Your task to perform on an android device: Empty the shopping cart on costco. Search for "usb-a" on costco, select the first entry, and add it to the cart. Image 0: 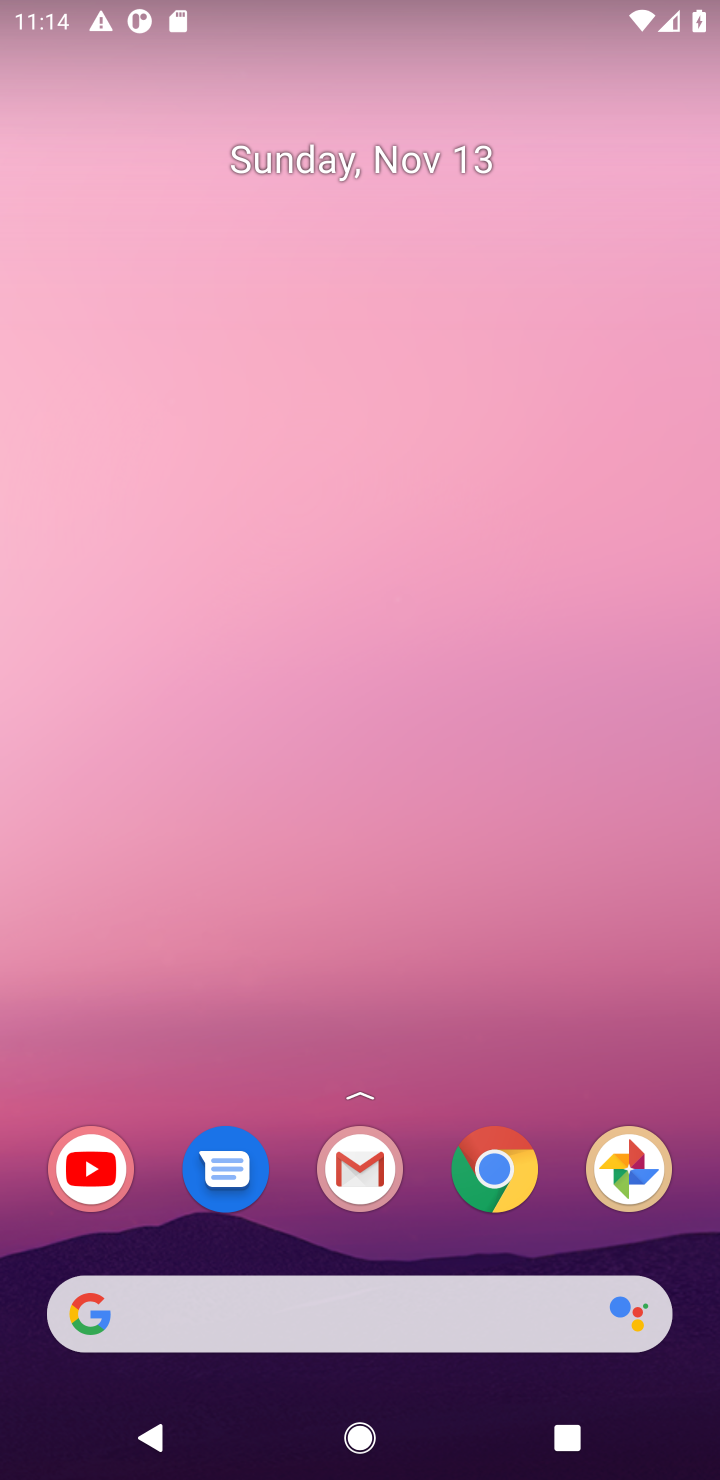
Step 0: drag from (451, 1243) to (572, 80)
Your task to perform on an android device: Empty the shopping cart on costco. Search for "usb-a" on costco, select the first entry, and add it to the cart. Image 1: 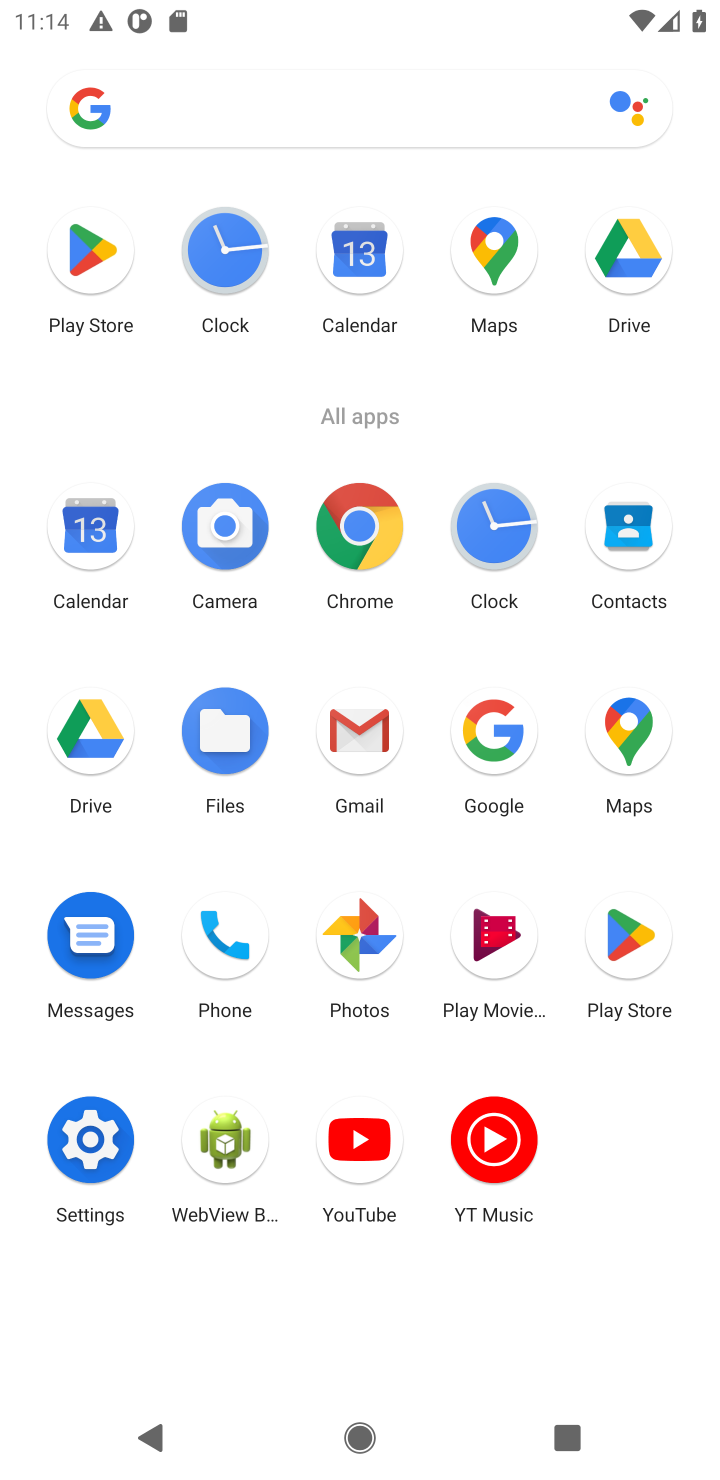
Step 1: click (365, 525)
Your task to perform on an android device: Empty the shopping cart on costco. Search for "usb-a" on costco, select the first entry, and add it to the cart. Image 2: 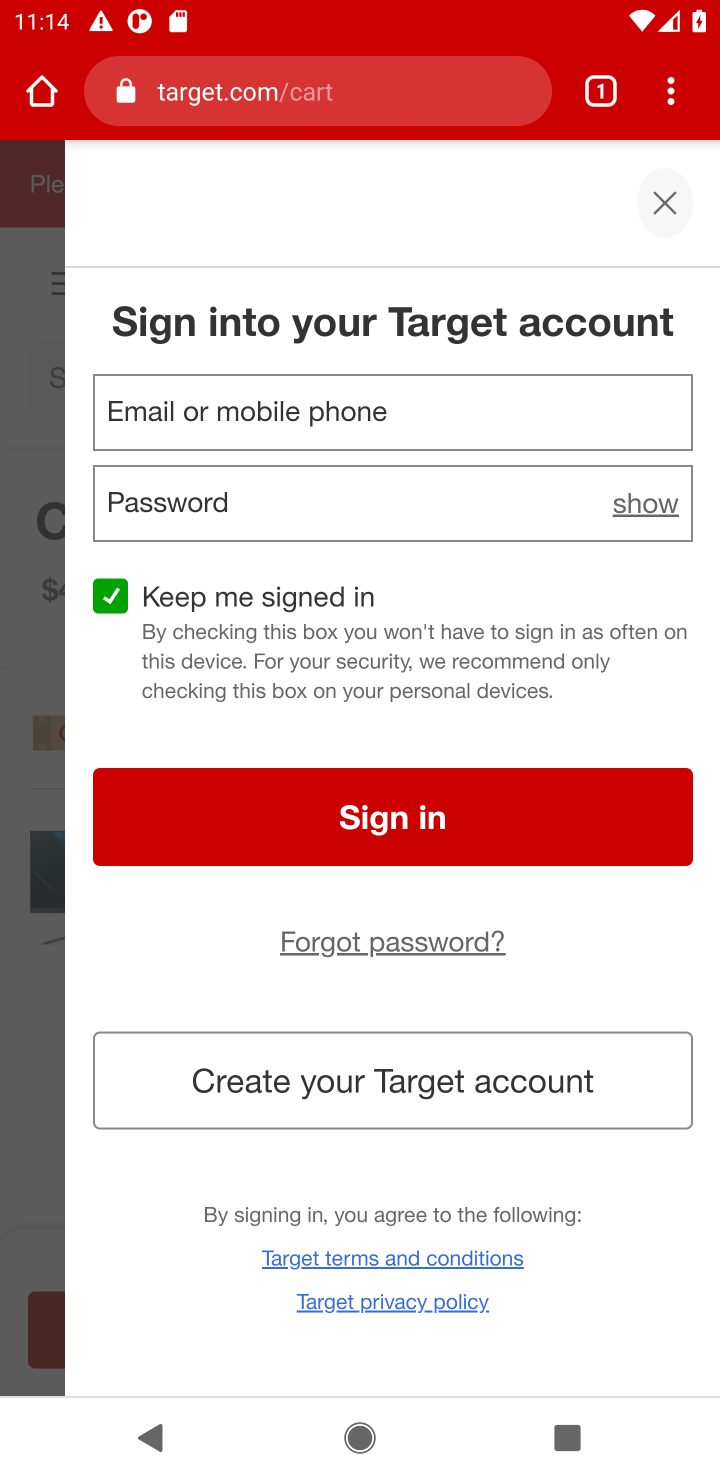
Step 2: click (334, 88)
Your task to perform on an android device: Empty the shopping cart on costco. Search for "usb-a" on costco, select the first entry, and add it to the cart. Image 3: 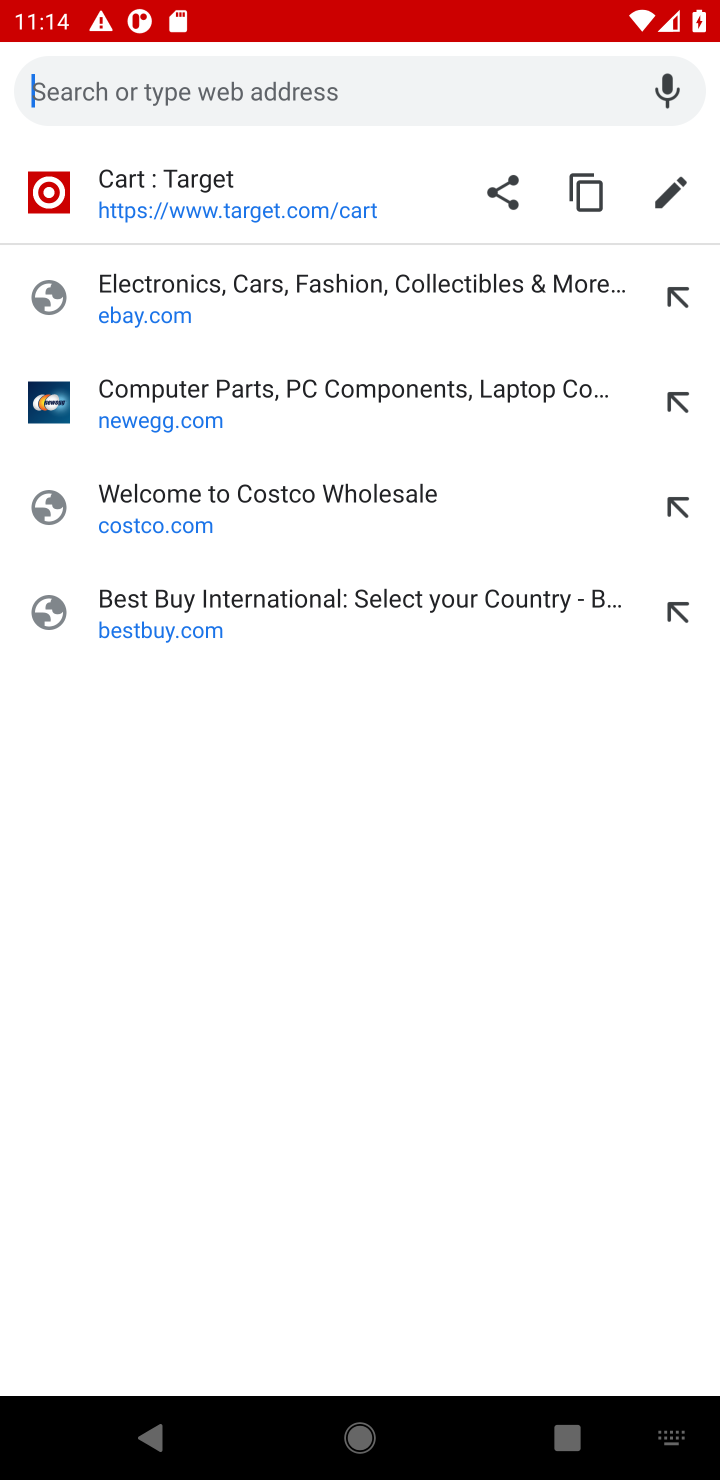
Step 3: type "costco.com"
Your task to perform on an android device: Empty the shopping cart on costco. Search for "usb-a" on costco, select the first entry, and add it to the cart. Image 4: 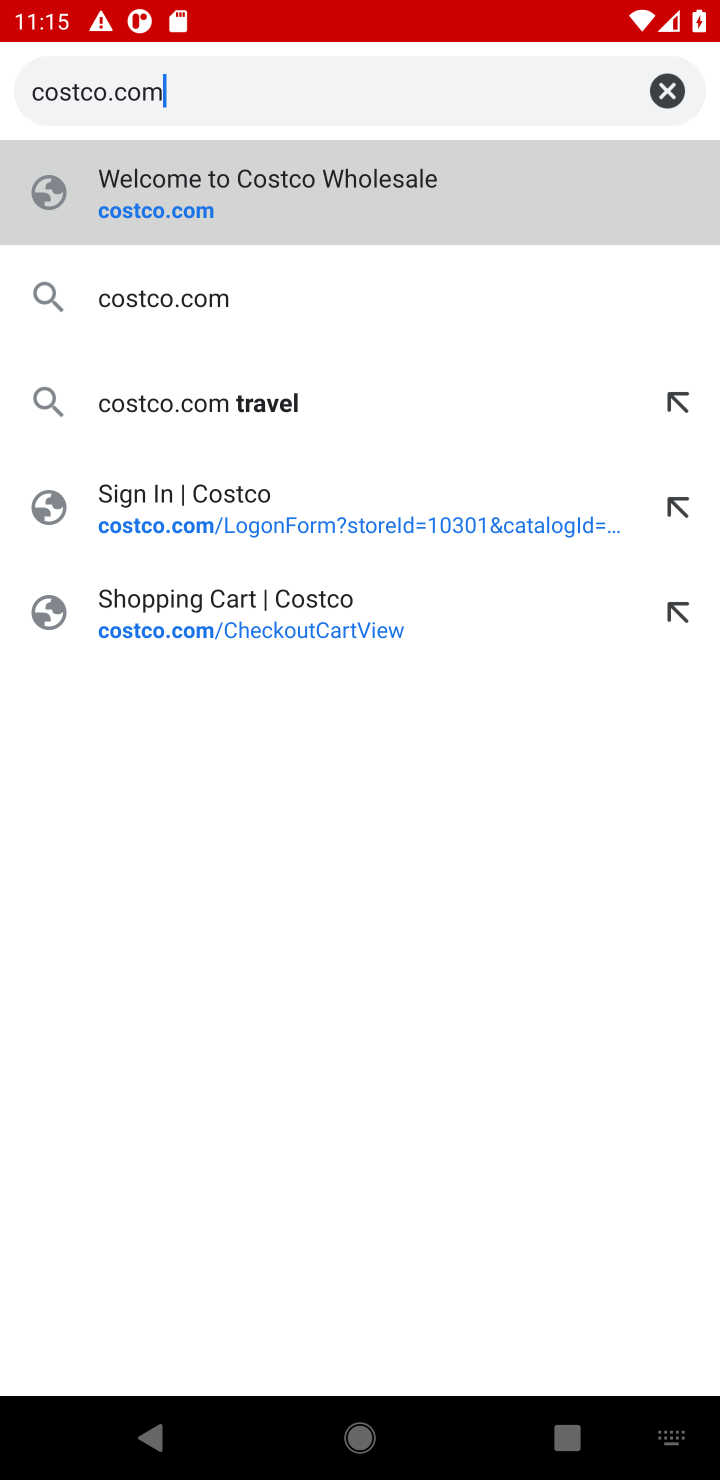
Step 4: press enter
Your task to perform on an android device: Empty the shopping cart on costco. Search for "usb-a" on costco, select the first entry, and add it to the cart. Image 5: 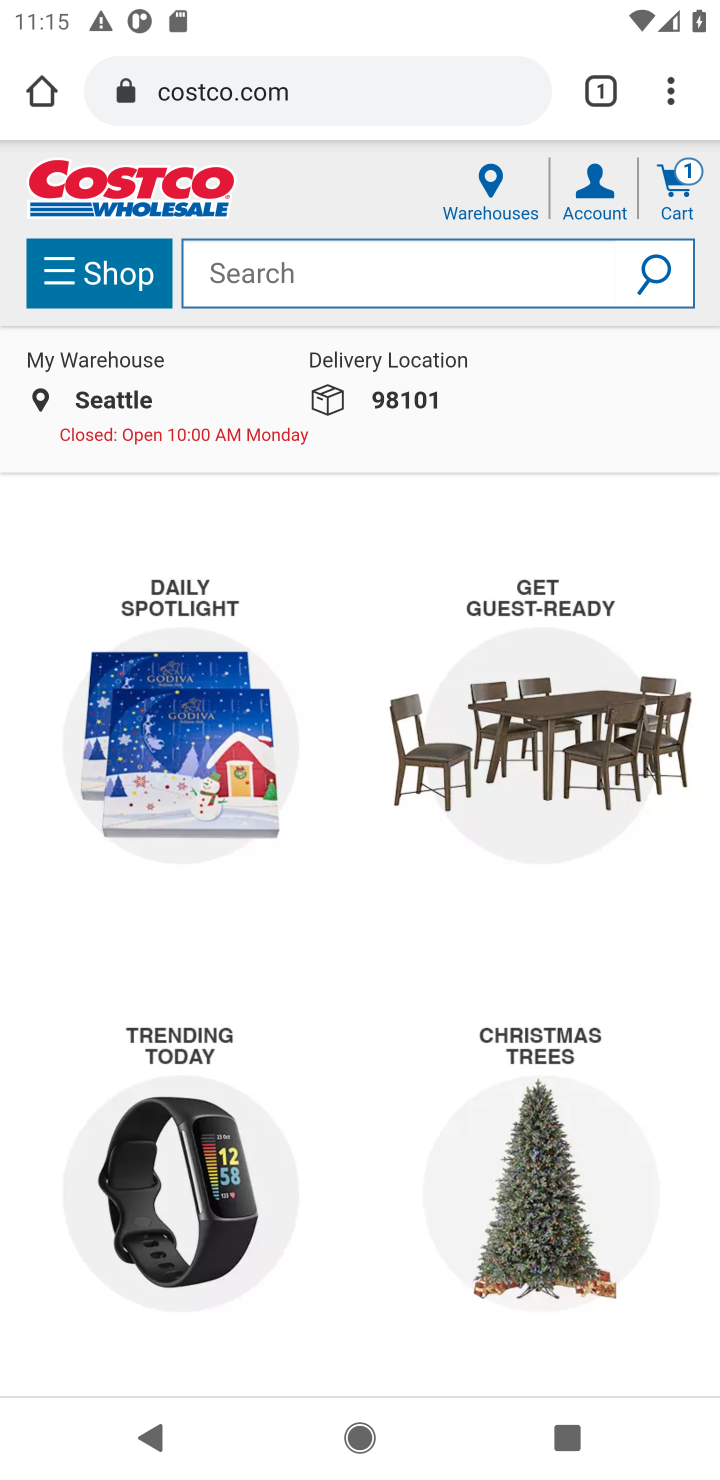
Step 5: click (684, 166)
Your task to perform on an android device: Empty the shopping cart on costco. Search for "usb-a" on costco, select the first entry, and add it to the cart. Image 6: 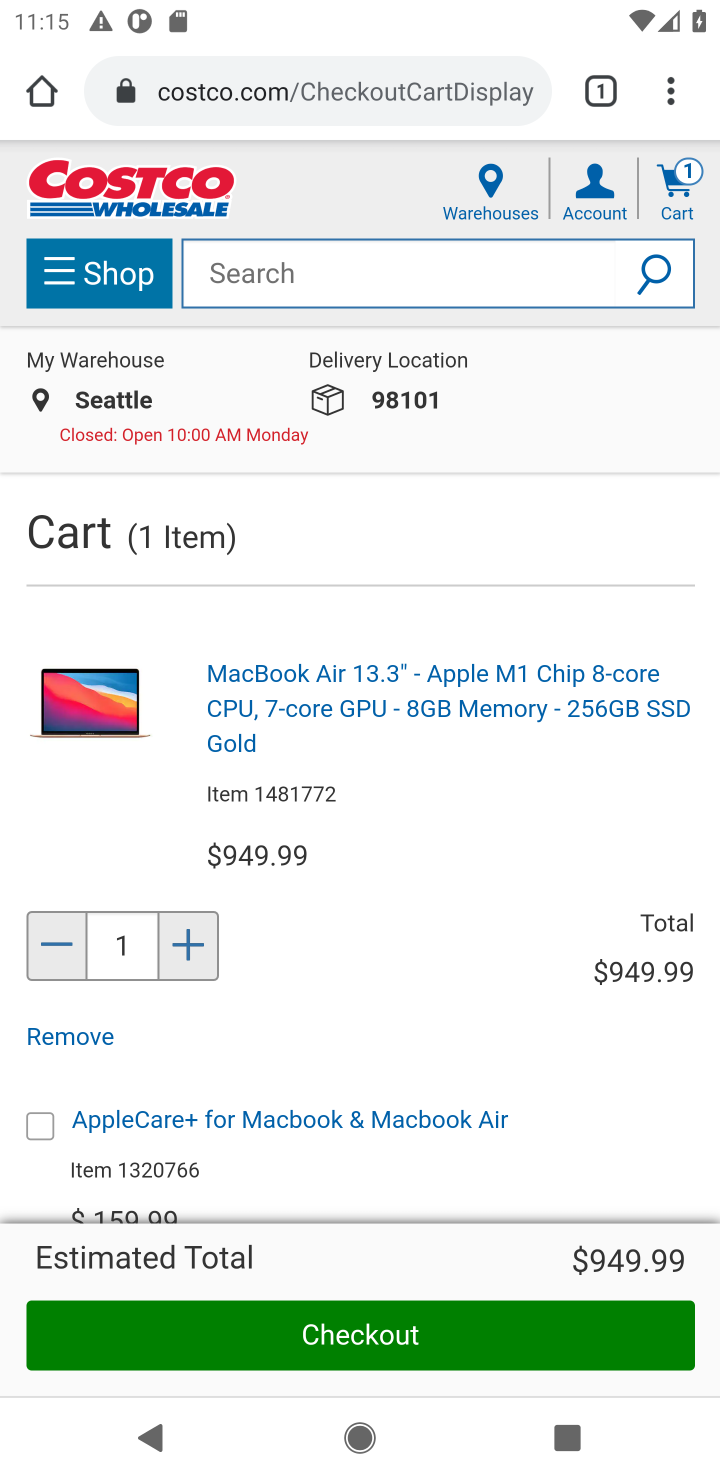
Step 6: click (58, 1031)
Your task to perform on an android device: Empty the shopping cart on costco. Search for "usb-a" on costco, select the first entry, and add it to the cart. Image 7: 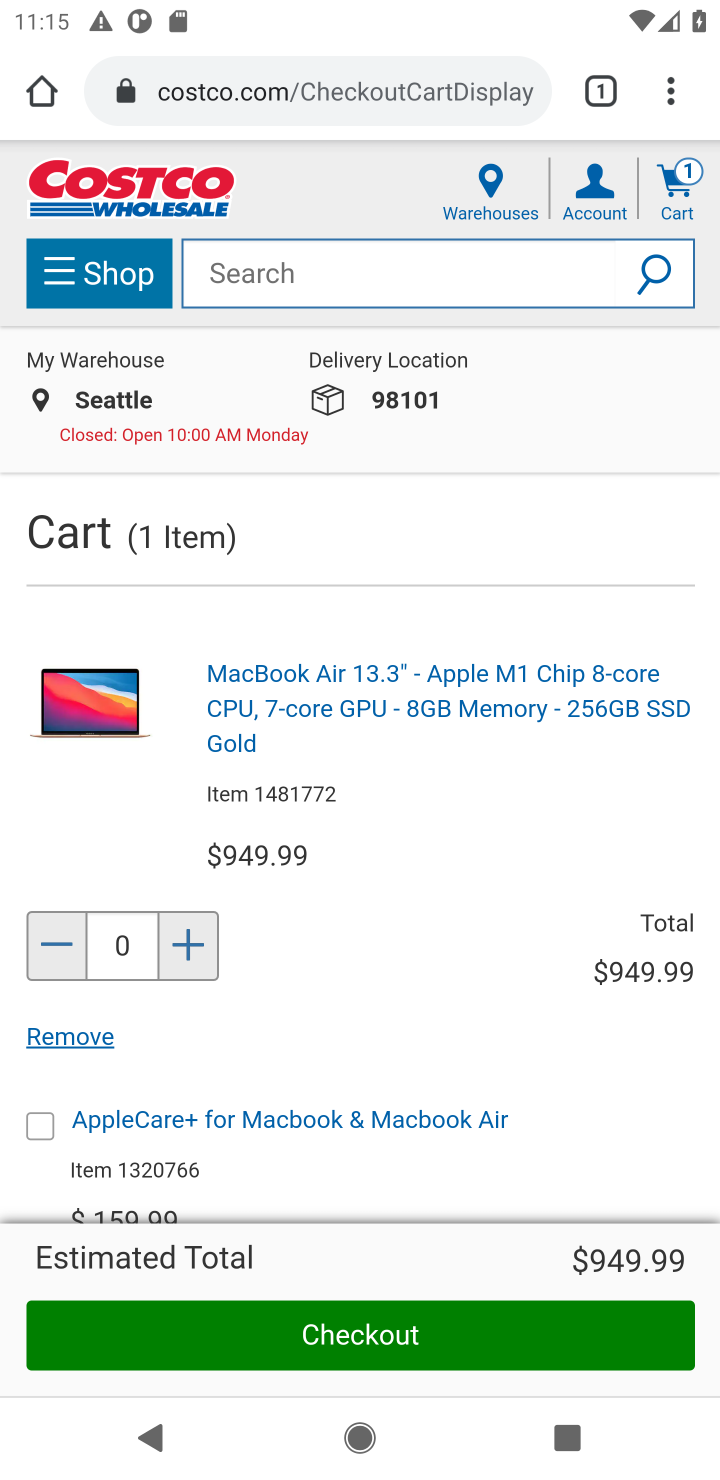
Step 7: click (58, 1031)
Your task to perform on an android device: Empty the shopping cart on costco. Search for "usb-a" on costco, select the first entry, and add it to the cart. Image 8: 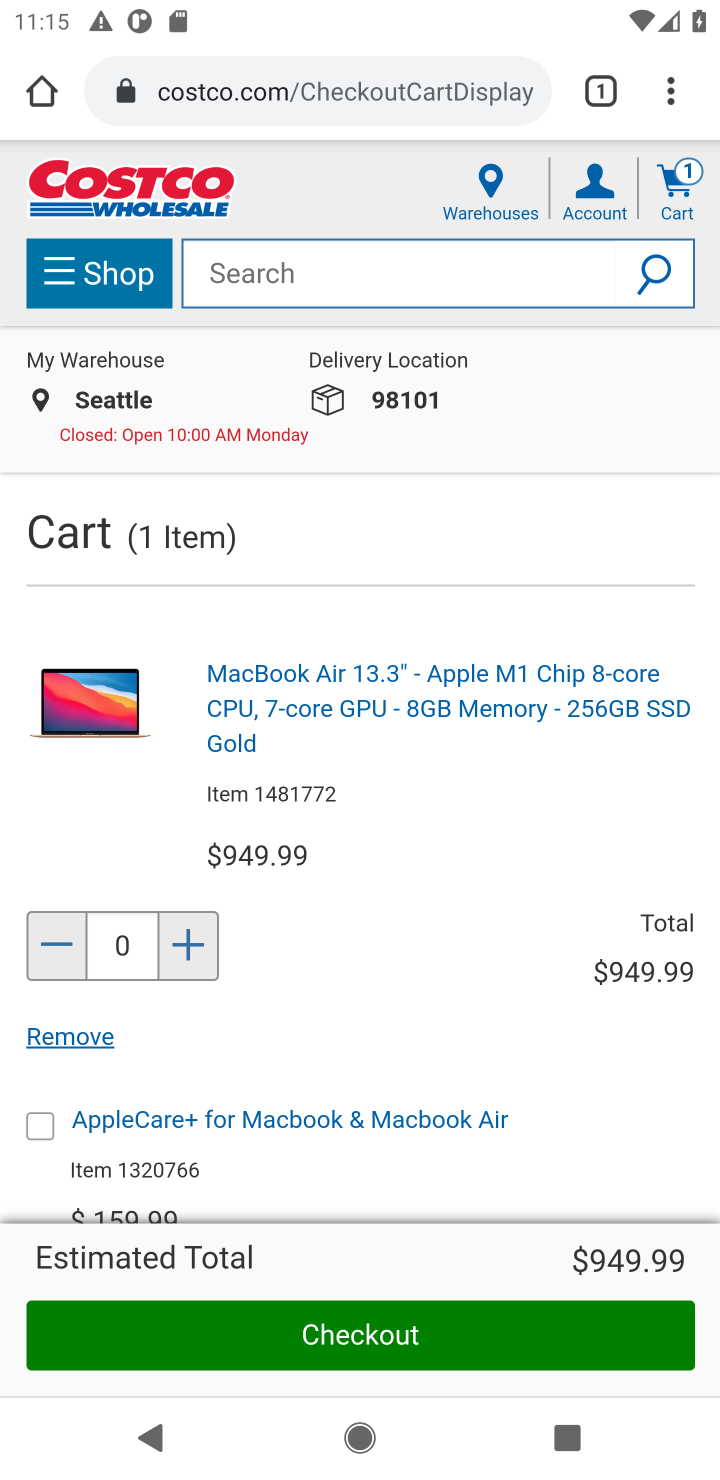
Step 8: task complete